Your task to perform on an android device: find snoozed emails in the gmail app Image 0: 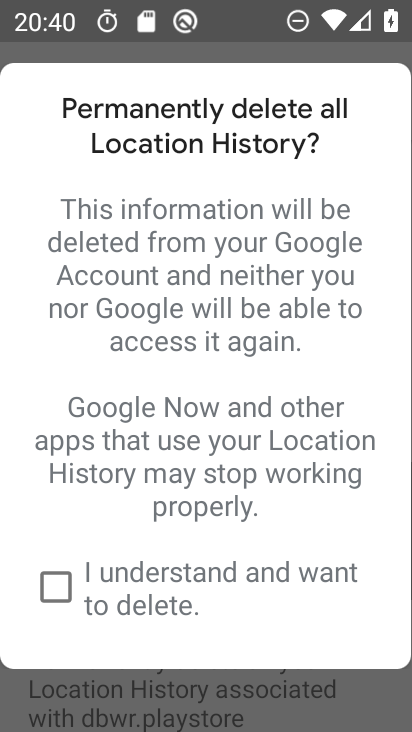
Step 0: press home button
Your task to perform on an android device: find snoozed emails in the gmail app Image 1: 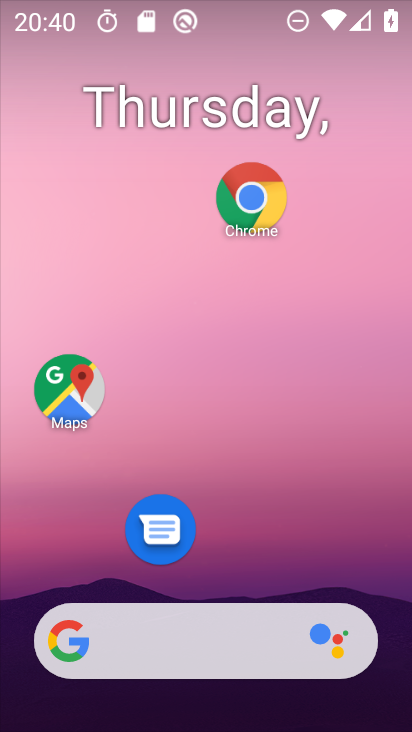
Step 1: drag from (244, 537) to (265, 104)
Your task to perform on an android device: find snoozed emails in the gmail app Image 2: 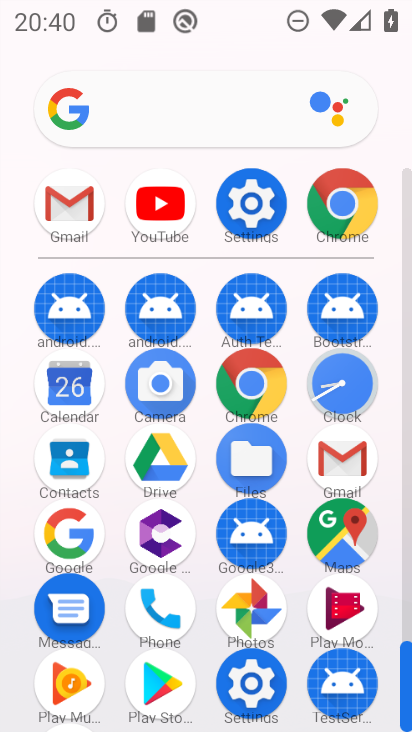
Step 2: click (60, 215)
Your task to perform on an android device: find snoozed emails in the gmail app Image 3: 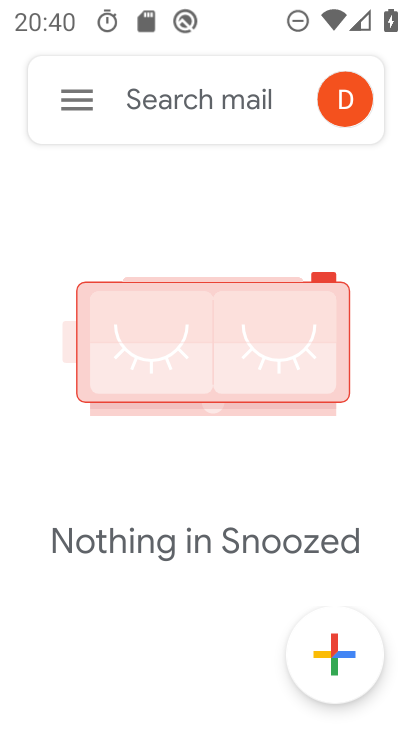
Step 3: click (61, 88)
Your task to perform on an android device: find snoozed emails in the gmail app Image 4: 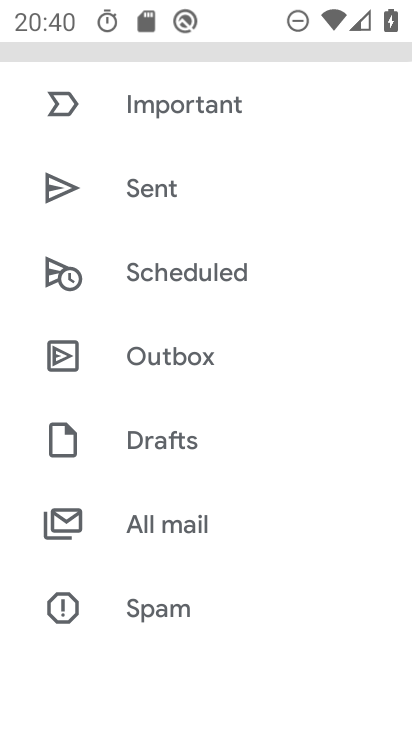
Step 4: drag from (163, 237) to (121, 658)
Your task to perform on an android device: find snoozed emails in the gmail app Image 5: 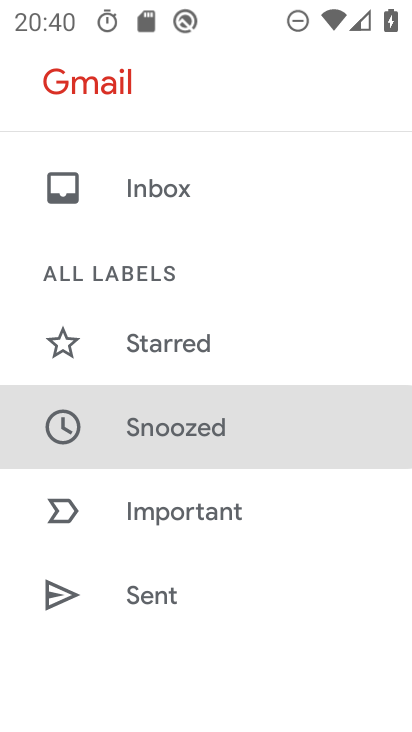
Step 5: drag from (182, 352) to (188, 715)
Your task to perform on an android device: find snoozed emails in the gmail app Image 6: 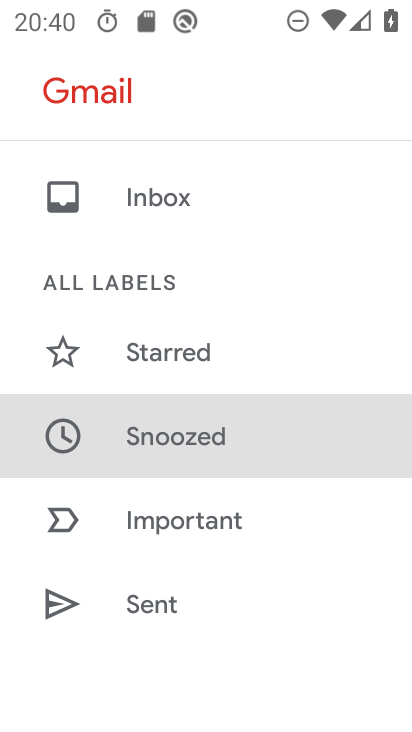
Step 6: click (194, 443)
Your task to perform on an android device: find snoozed emails in the gmail app Image 7: 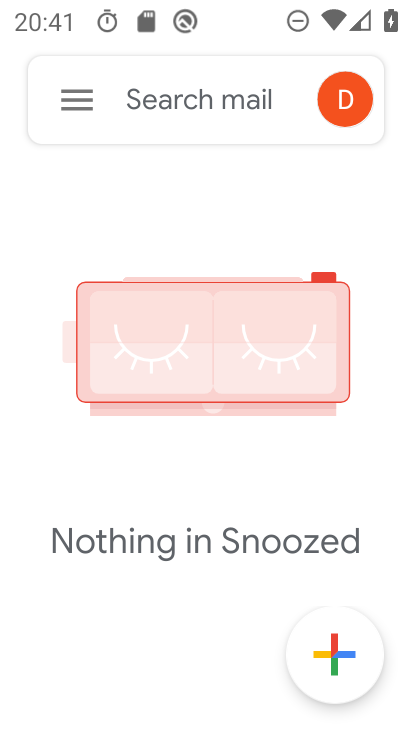
Step 7: task complete